Your task to perform on an android device: add a contact Image 0: 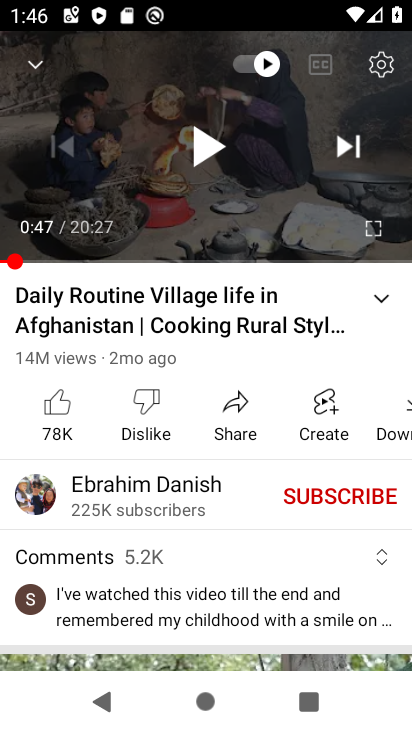
Step 0: press home button
Your task to perform on an android device: add a contact Image 1: 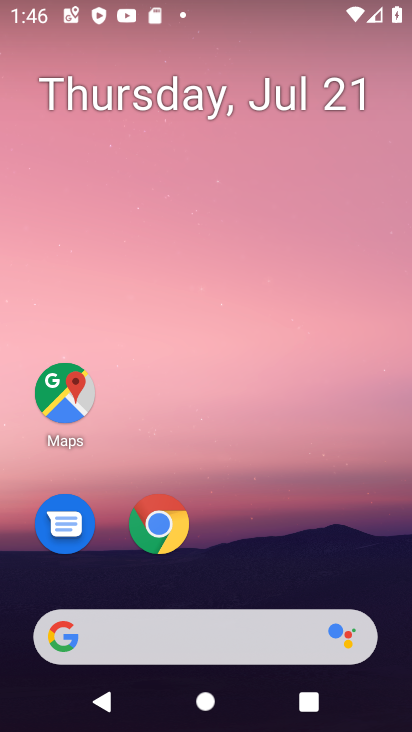
Step 1: drag from (272, 545) to (200, 1)
Your task to perform on an android device: add a contact Image 2: 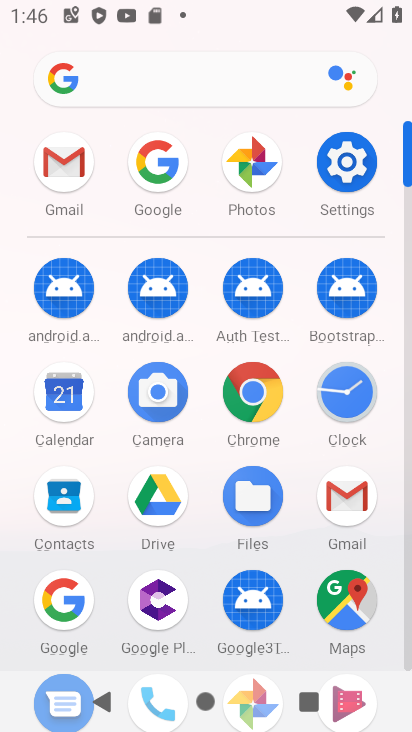
Step 2: click (53, 501)
Your task to perform on an android device: add a contact Image 3: 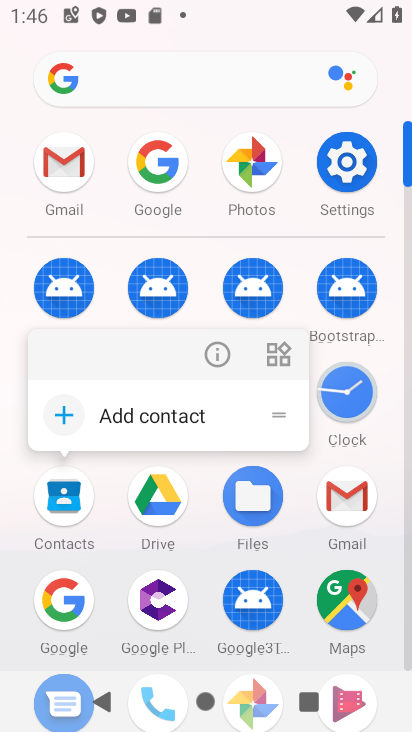
Step 3: click (32, 564)
Your task to perform on an android device: add a contact Image 4: 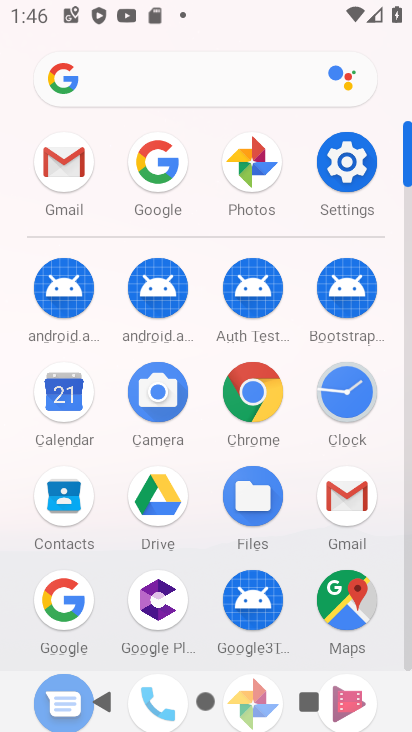
Step 4: click (62, 503)
Your task to perform on an android device: add a contact Image 5: 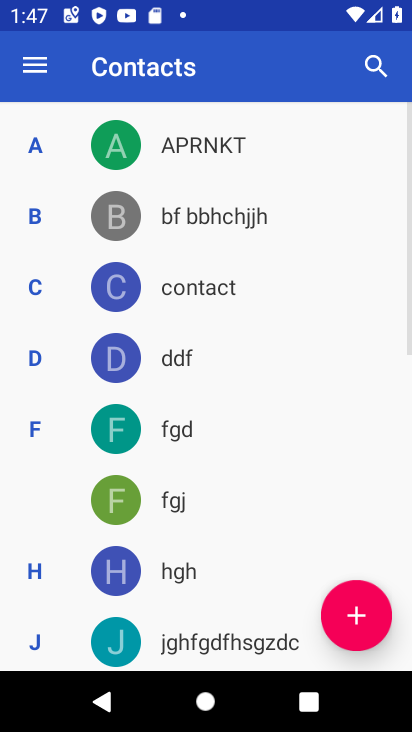
Step 5: click (372, 624)
Your task to perform on an android device: add a contact Image 6: 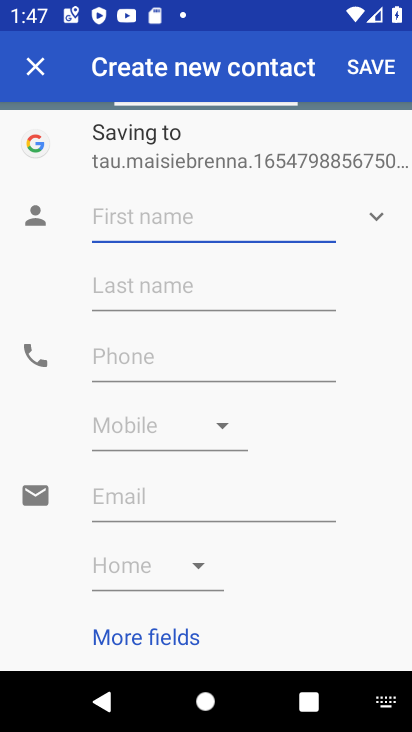
Step 6: type "Om Shri"
Your task to perform on an android device: add a contact Image 7: 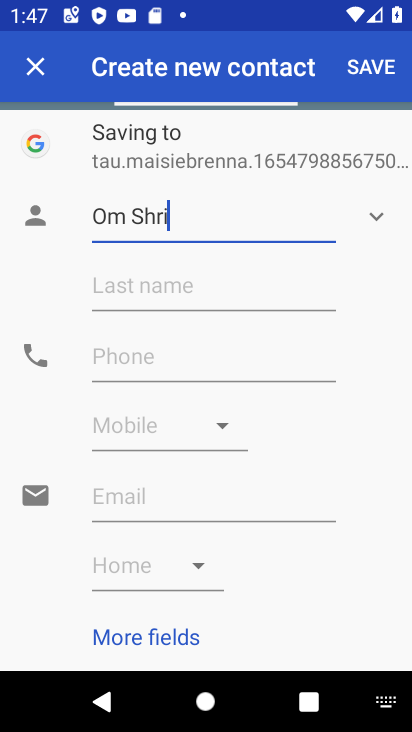
Step 7: click (189, 365)
Your task to perform on an android device: add a contact Image 8: 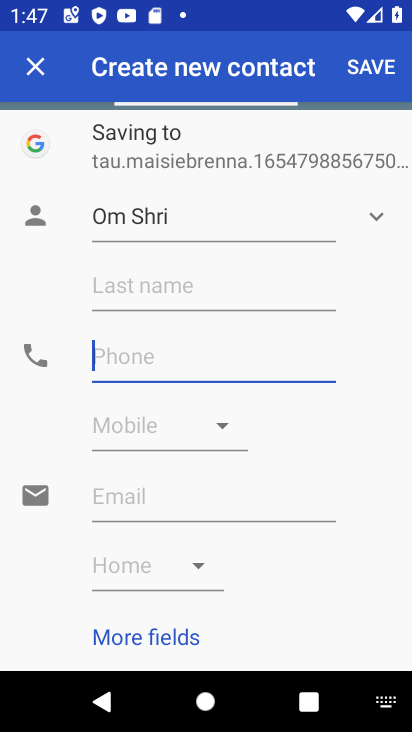
Step 8: type "919990000001"
Your task to perform on an android device: add a contact Image 9: 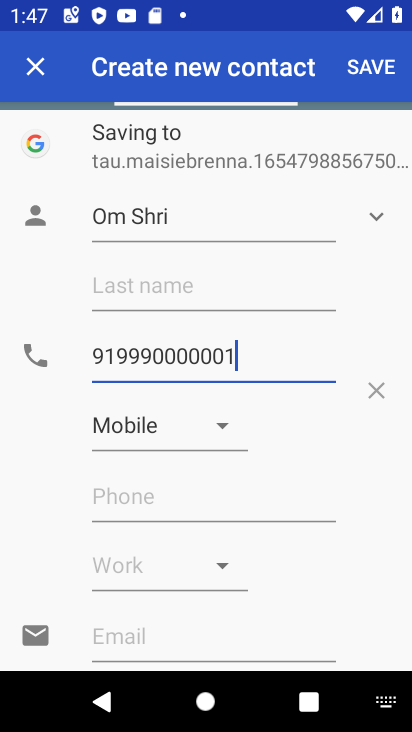
Step 9: click (357, 67)
Your task to perform on an android device: add a contact Image 10: 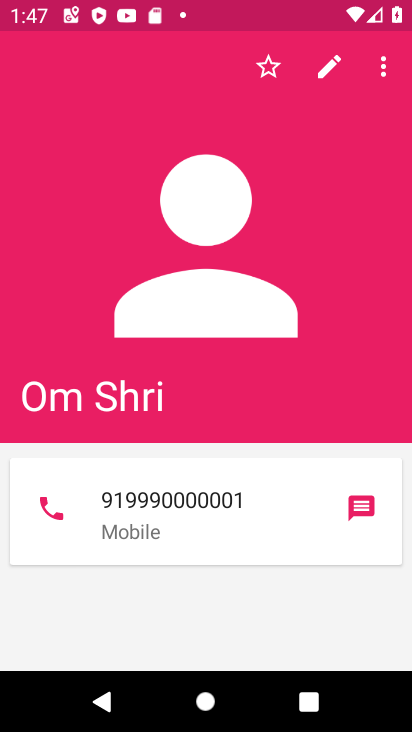
Step 10: task complete